Your task to perform on an android device: Open Google Image 0: 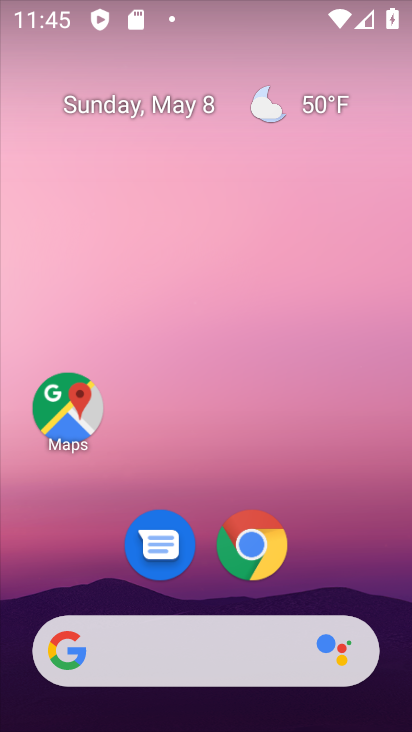
Step 0: drag from (196, 560) to (201, 213)
Your task to perform on an android device: Open Google Image 1: 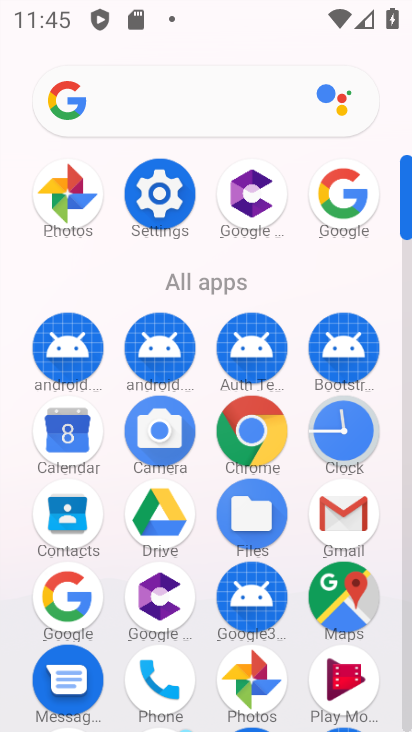
Step 1: click (66, 598)
Your task to perform on an android device: Open Google Image 2: 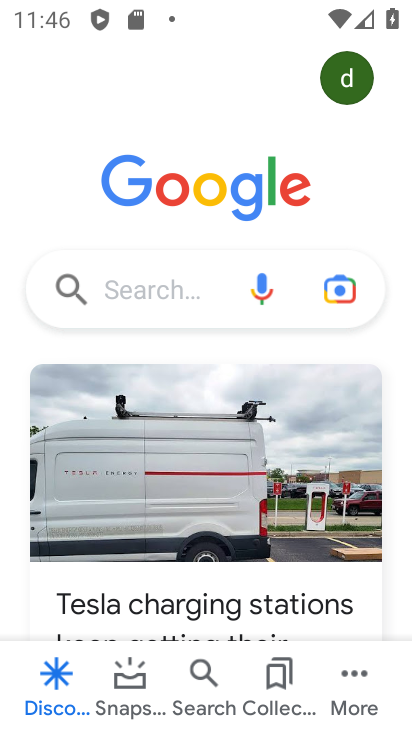
Step 2: task complete